Your task to perform on an android device: Show the shopping cart on bestbuy. Search for usb-a on bestbuy, select the first entry, and add it to the cart. Image 0: 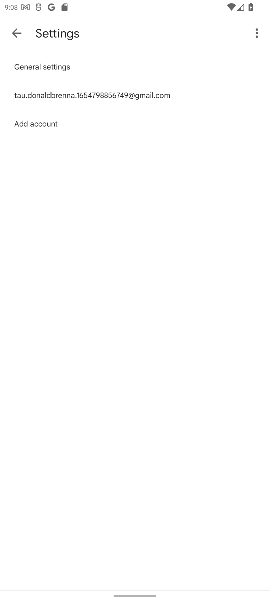
Step 0: press home button
Your task to perform on an android device: Show the shopping cart on bestbuy. Search for usb-a on bestbuy, select the first entry, and add it to the cart. Image 1: 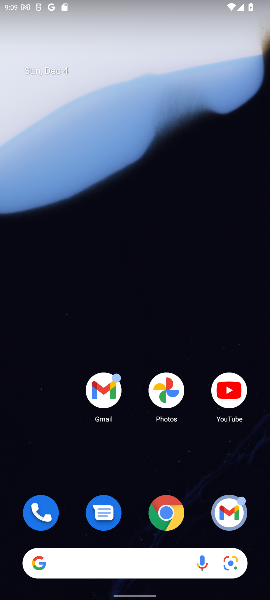
Step 1: click (166, 508)
Your task to perform on an android device: Show the shopping cart on bestbuy. Search for usb-a on bestbuy, select the first entry, and add it to the cart. Image 2: 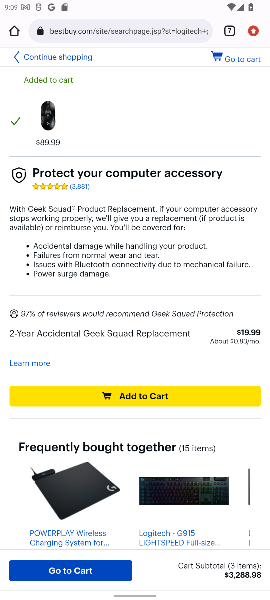
Step 2: click (62, 55)
Your task to perform on an android device: Show the shopping cart on bestbuy. Search for usb-a on bestbuy, select the first entry, and add it to the cart. Image 3: 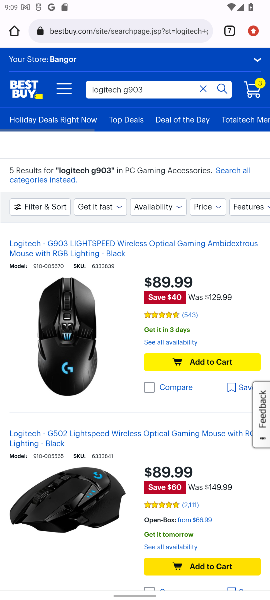
Step 3: click (201, 86)
Your task to perform on an android device: Show the shopping cart on bestbuy. Search for usb-a on bestbuy, select the first entry, and add it to the cart. Image 4: 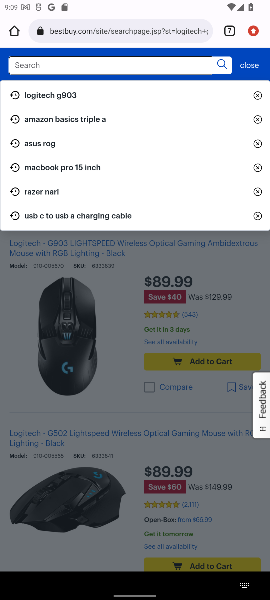
Step 4: type "usb-a"
Your task to perform on an android device: Show the shopping cart on bestbuy. Search for usb-a on bestbuy, select the first entry, and add it to the cart. Image 5: 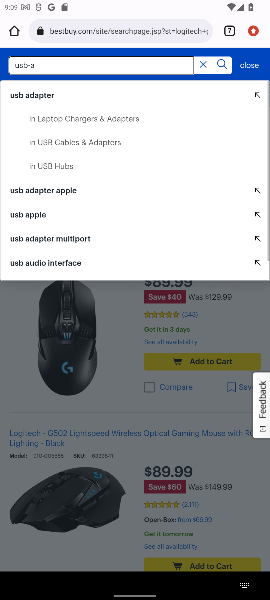
Step 5: click (222, 64)
Your task to perform on an android device: Show the shopping cart on bestbuy. Search for usb-a on bestbuy, select the first entry, and add it to the cart. Image 6: 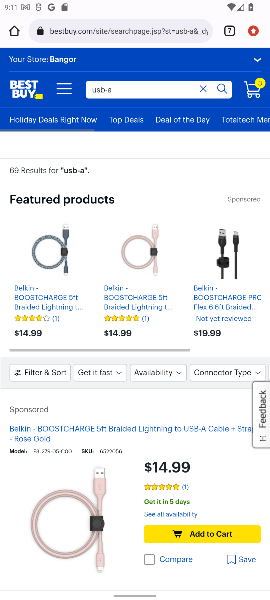
Step 6: click (211, 531)
Your task to perform on an android device: Show the shopping cart on bestbuy. Search for usb-a on bestbuy, select the first entry, and add it to the cart. Image 7: 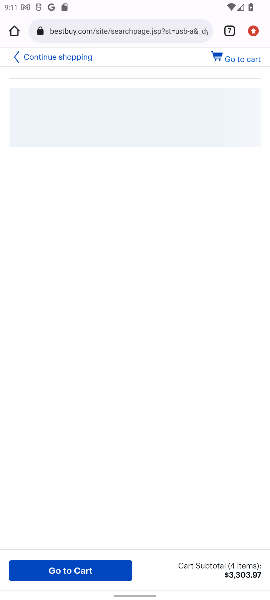
Step 7: task complete